Your task to perform on an android device: choose inbox layout in the gmail app Image 0: 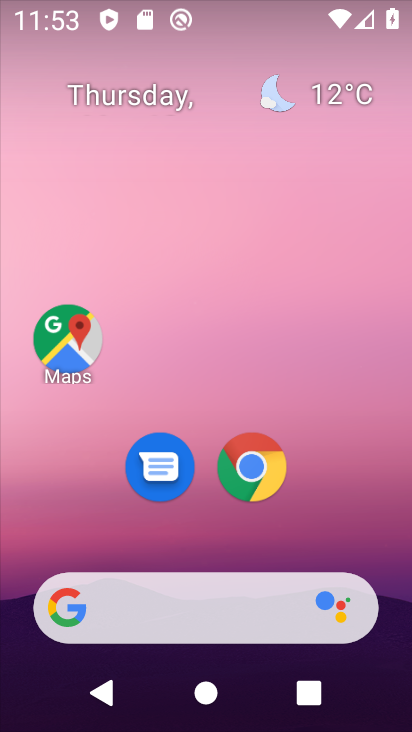
Step 0: drag from (363, 306) to (120, 4)
Your task to perform on an android device: choose inbox layout in the gmail app Image 1: 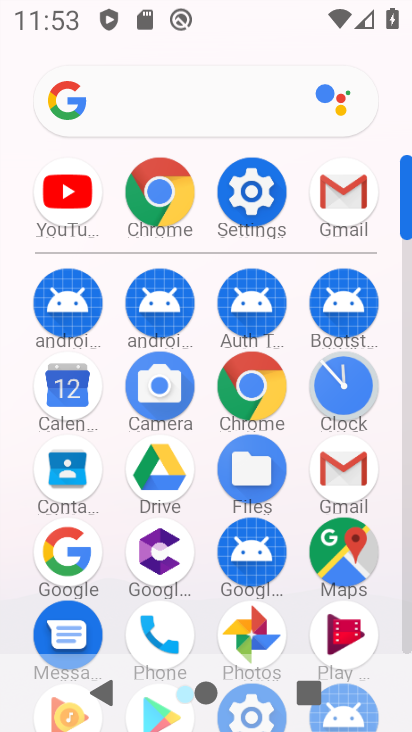
Step 1: drag from (265, 268) to (364, 93)
Your task to perform on an android device: choose inbox layout in the gmail app Image 2: 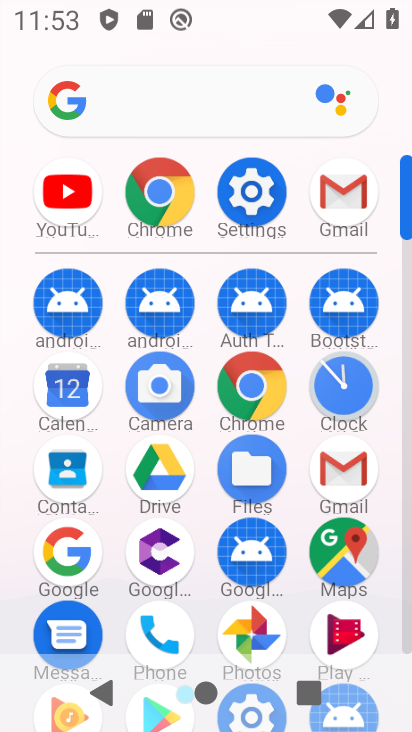
Step 2: click (354, 187)
Your task to perform on an android device: choose inbox layout in the gmail app Image 3: 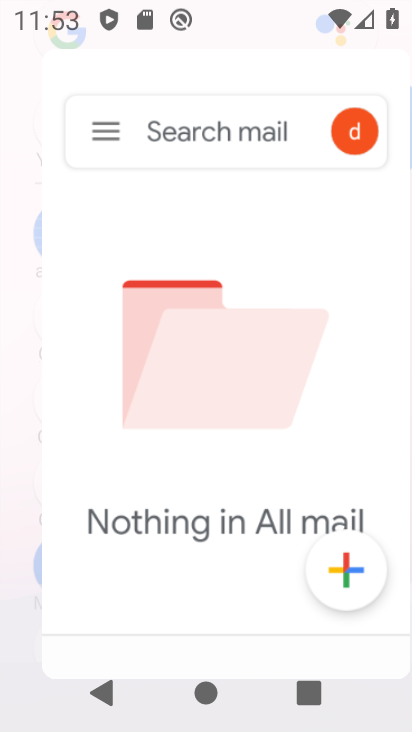
Step 3: click (354, 187)
Your task to perform on an android device: choose inbox layout in the gmail app Image 4: 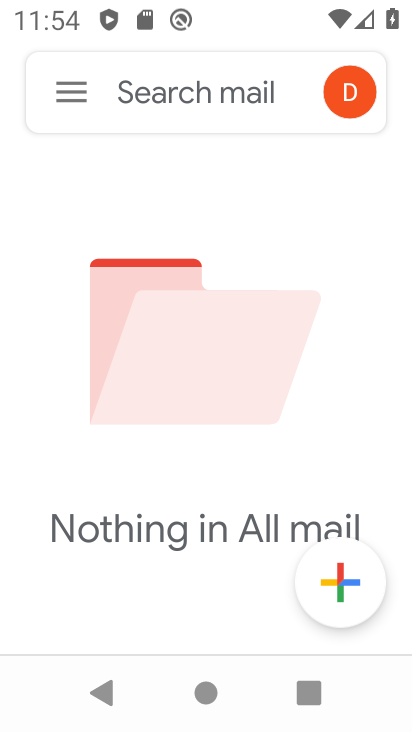
Step 4: click (74, 100)
Your task to perform on an android device: choose inbox layout in the gmail app Image 5: 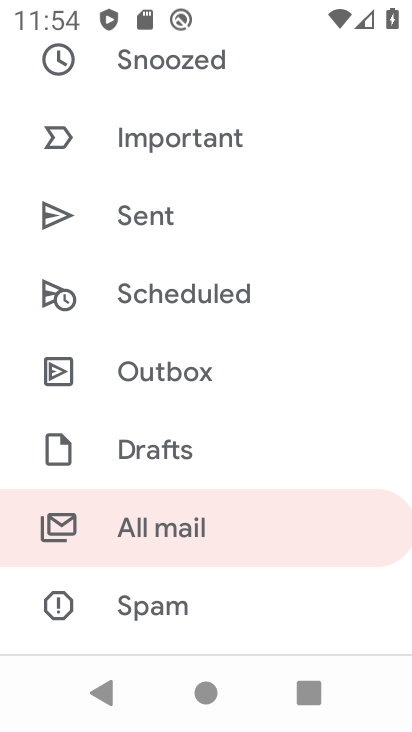
Step 5: drag from (160, 501) to (244, 176)
Your task to perform on an android device: choose inbox layout in the gmail app Image 6: 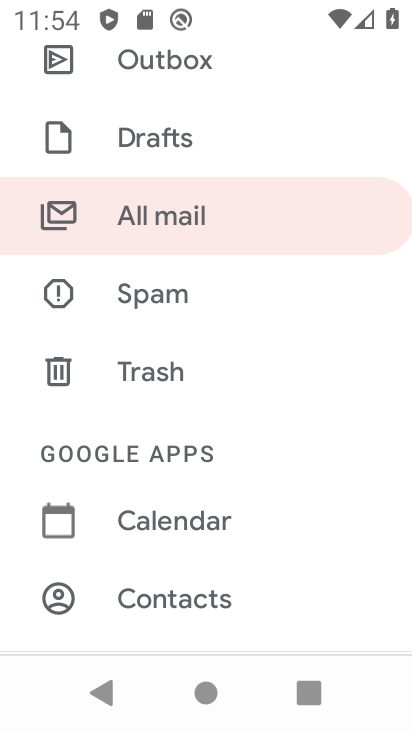
Step 6: drag from (216, 486) to (213, 267)
Your task to perform on an android device: choose inbox layout in the gmail app Image 7: 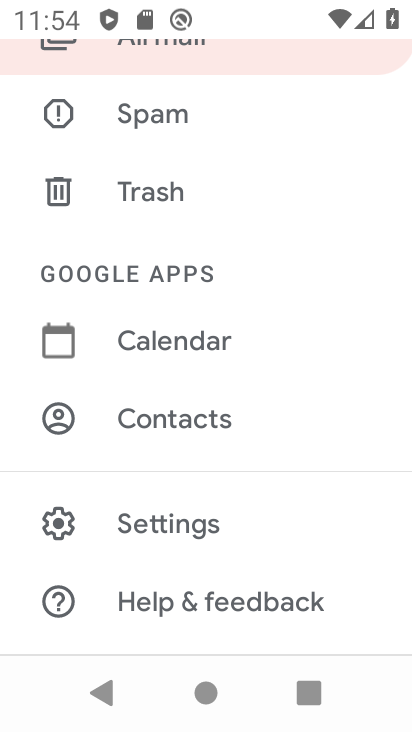
Step 7: click (156, 515)
Your task to perform on an android device: choose inbox layout in the gmail app Image 8: 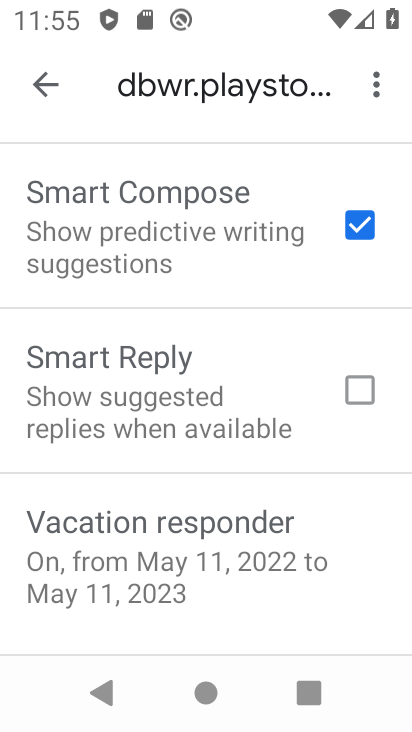
Step 8: drag from (171, 552) to (195, 256)
Your task to perform on an android device: choose inbox layout in the gmail app Image 9: 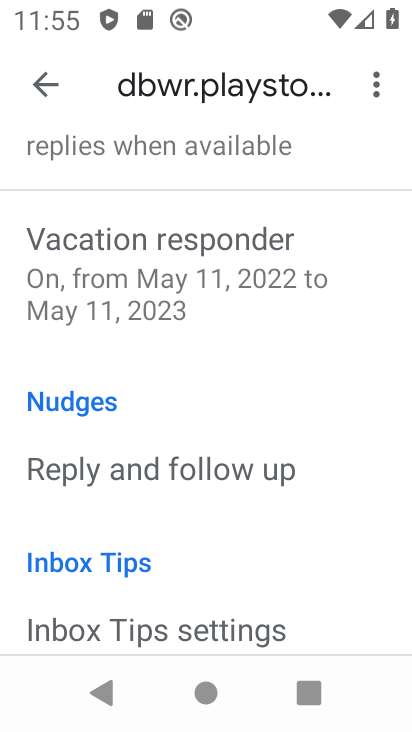
Step 9: drag from (227, 564) to (273, 250)
Your task to perform on an android device: choose inbox layout in the gmail app Image 10: 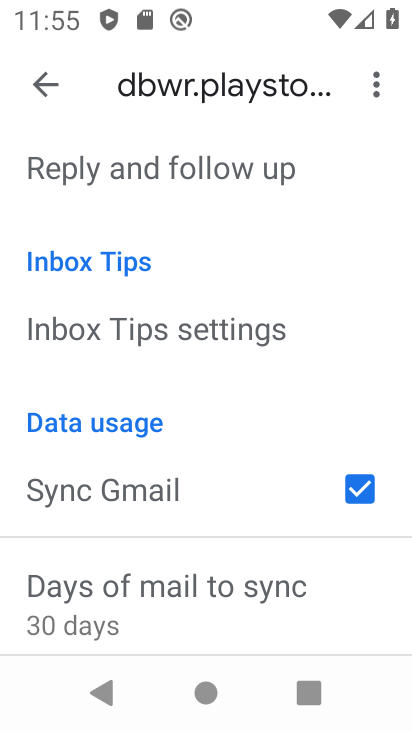
Step 10: click (180, 288)
Your task to perform on an android device: choose inbox layout in the gmail app Image 11: 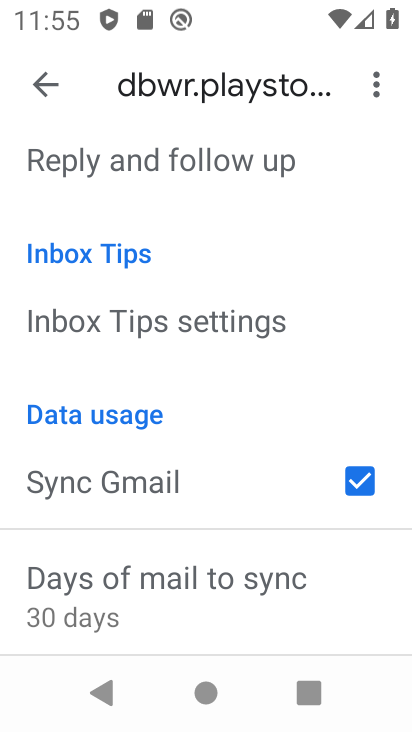
Step 11: drag from (202, 205) to (132, 474)
Your task to perform on an android device: choose inbox layout in the gmail app Image 12: 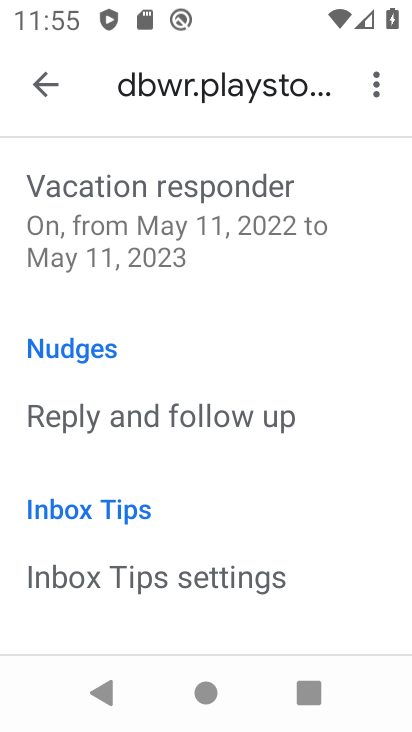
Step 12: drag from (185, 176) to (138, 592)
Your task to perform on an android device: choose inbox layout in the gmail app Image 13: 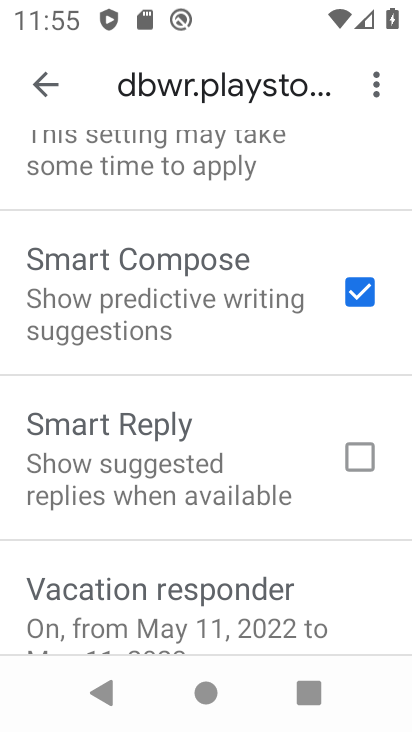
Step 13: drag from (186, 203) to (136, 490)
Your task to perform on an android device: choose inbox layout in the gmail app Image 14: 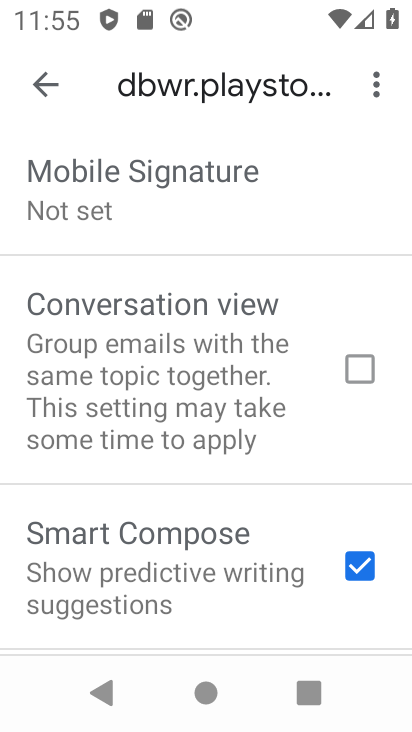
Step 14: drag from (135, 218) to (98, 509)
Your task to perform on an android device: choose inbox layout in the gmail app Image 15: 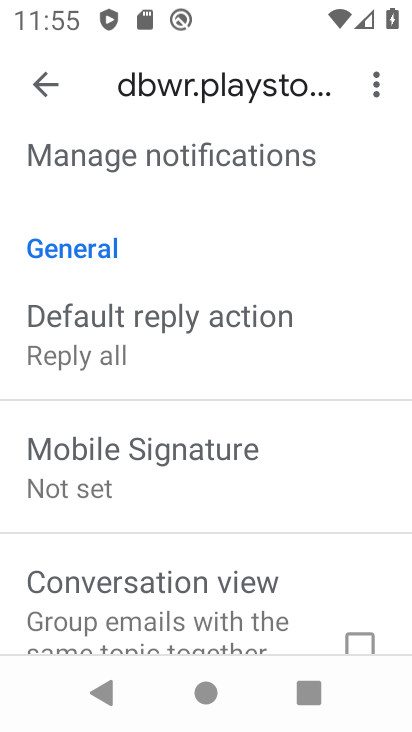
Step 15: drag from (165, 248) to (137, 560)
Your task to perform on an android device: choose inbox layout in the gmail app Image 16: 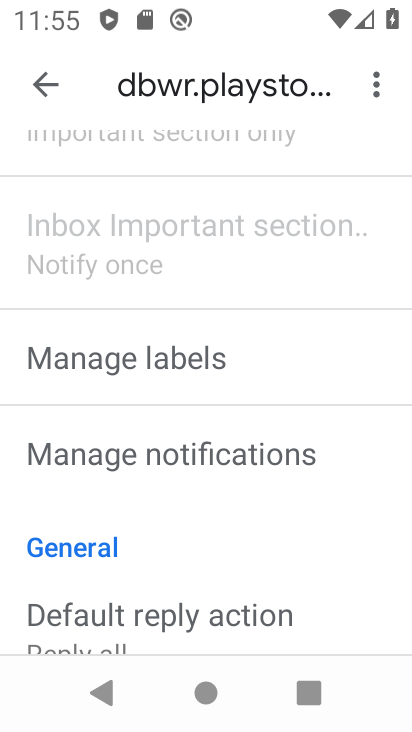
Step 16: drag from (189, 291) to (151, 565)
Your task to perform on an android device: choose inbox layout in the gmail app Image 17: 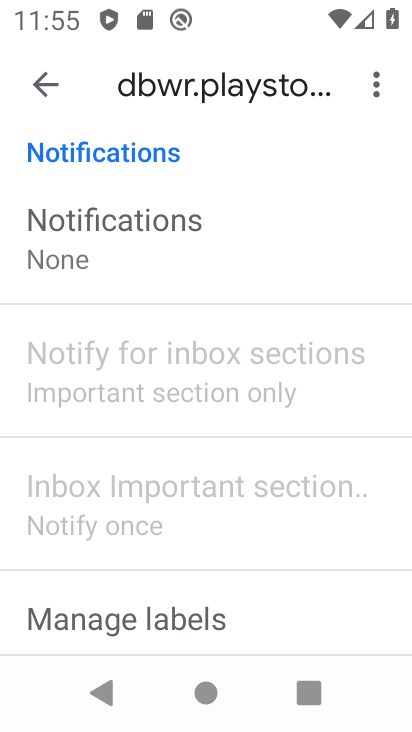
Step 17: drag from (184, 219) to (180, 589)
Your task to perform on an android device: choose inbox layout in the gmail app Image 18: 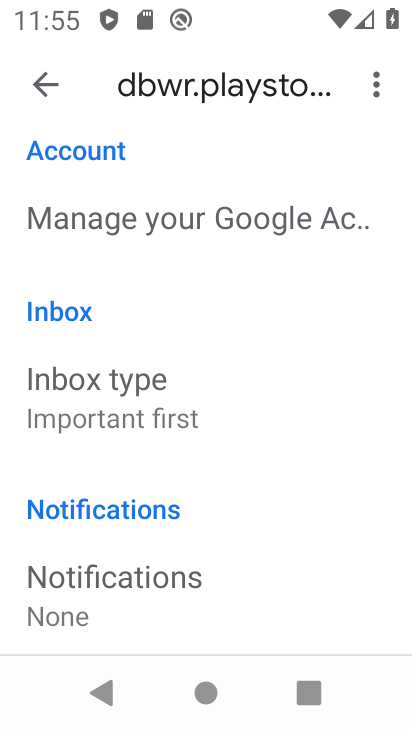
Step 18: click (139, 383)
Your task to perform on an android device: choose inbox layout in the gmail app Image 19: 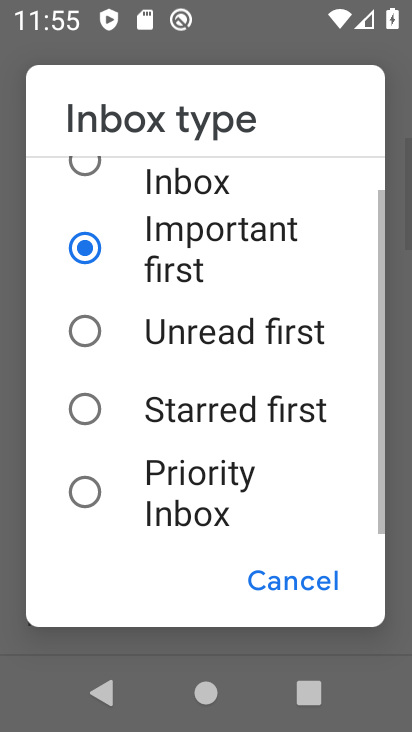
Step 19: click (104, 332)
Your task to perform on an android device: choose inbox layout in the gmail app Image 20: 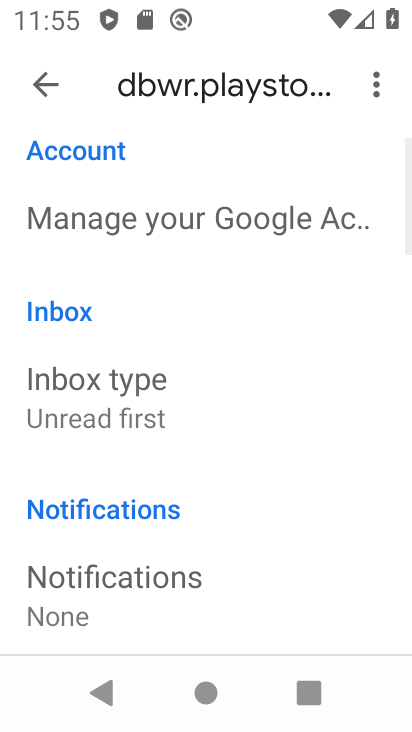
Step 20: task complete